Your task to perform on an android device: Search for sony triple a on target.com, select the first entry, add it to the cart, then select checkout. Image 0: 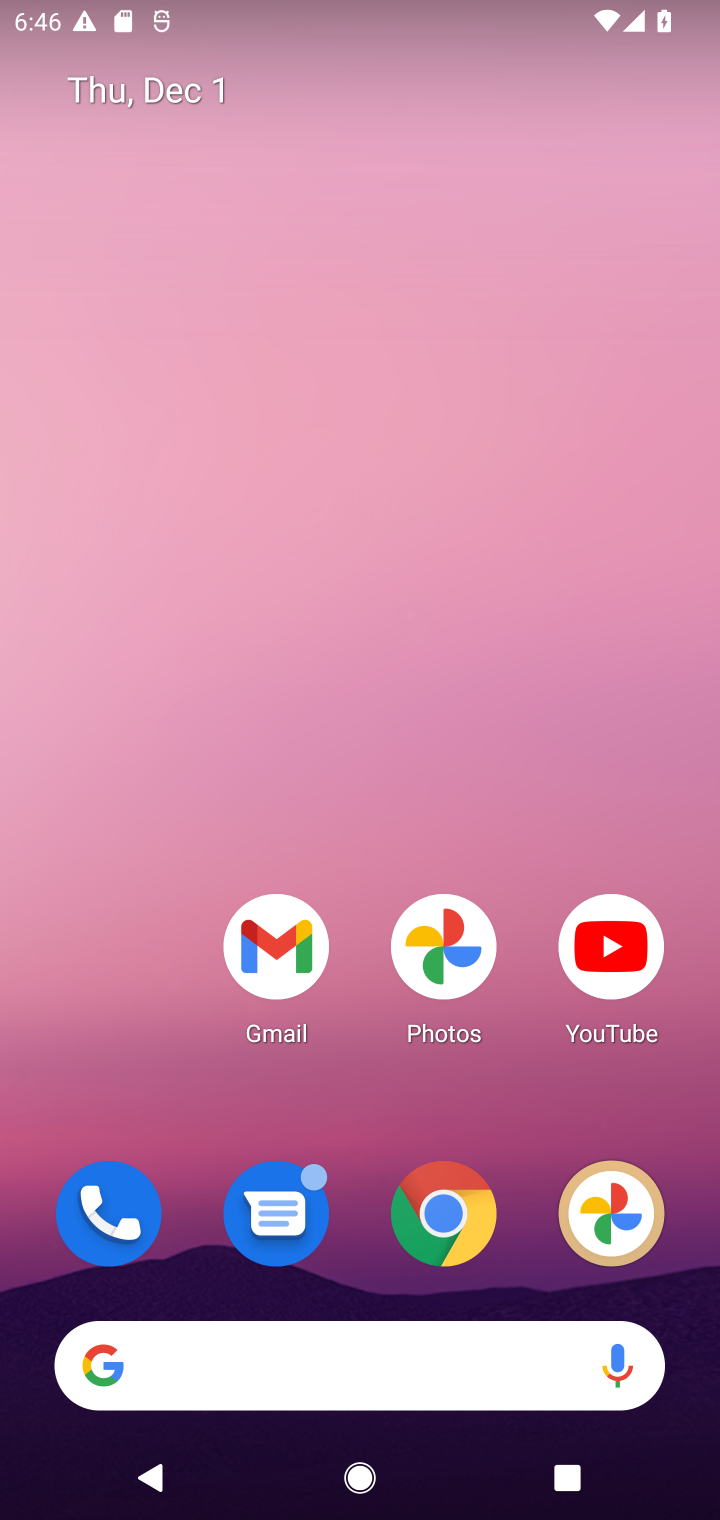
Step 0: click (430, 1375)
Your task to perform on an android device: Search for sony triple a on target.com, select the first entry, add it to the cart, then select checkout. Image 1: 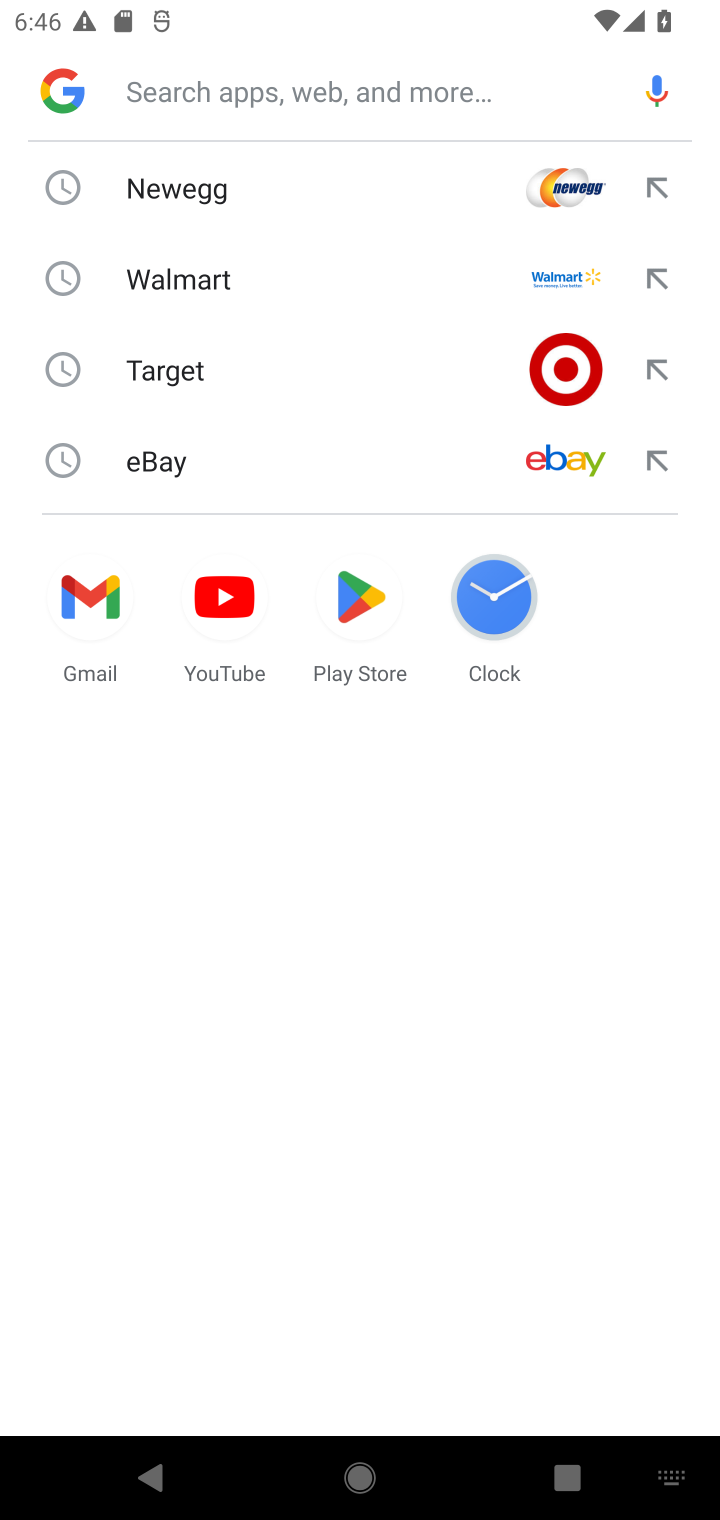
Step 1: click (147, 364)
Your task to perform on an android device: Search for sony triple a on target.com, select the first entry, add it to the cart, then select checkout. Image 2: 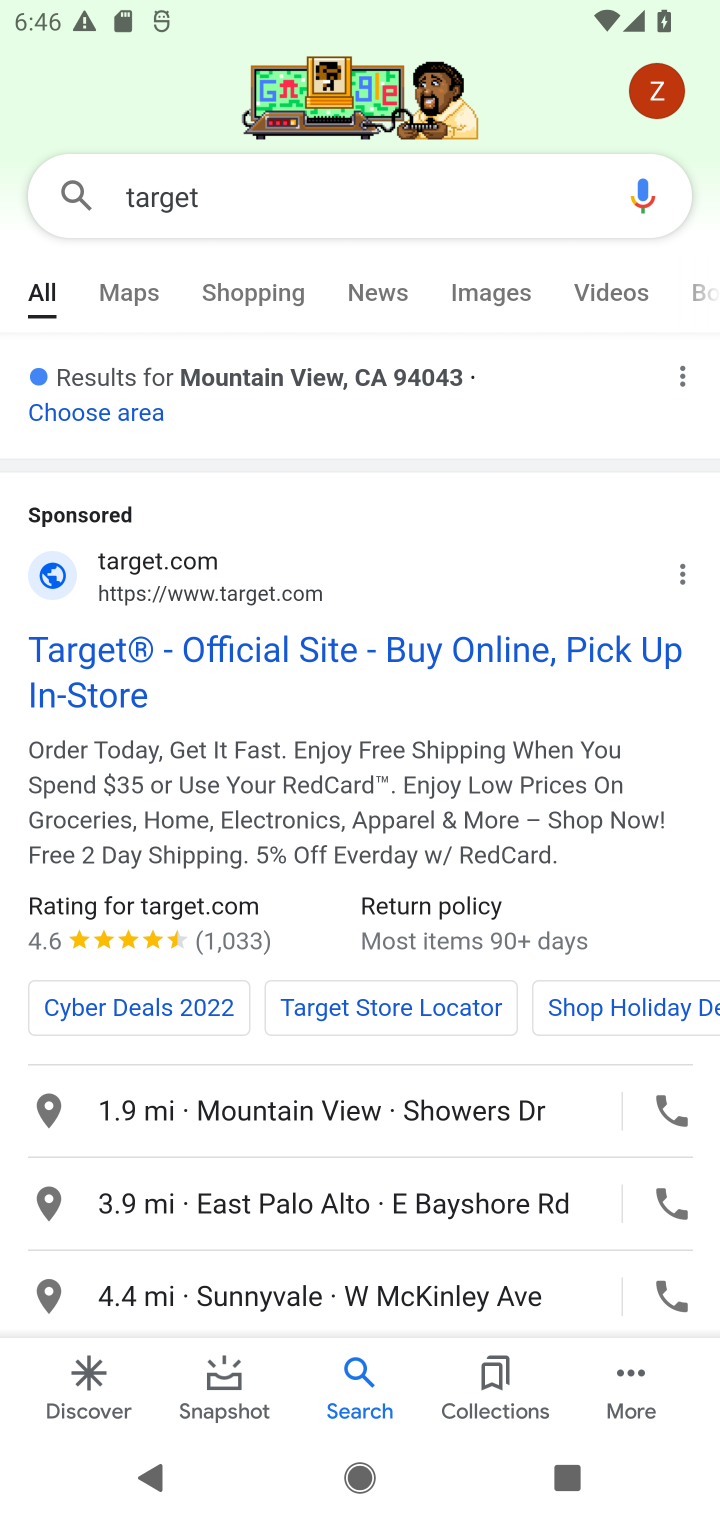
Step 2: click (96, 696)
Your task to perform on an android device: Search for sony triple a on target.com, select the first entry, add it to the cart, then select checkout. Image 3: 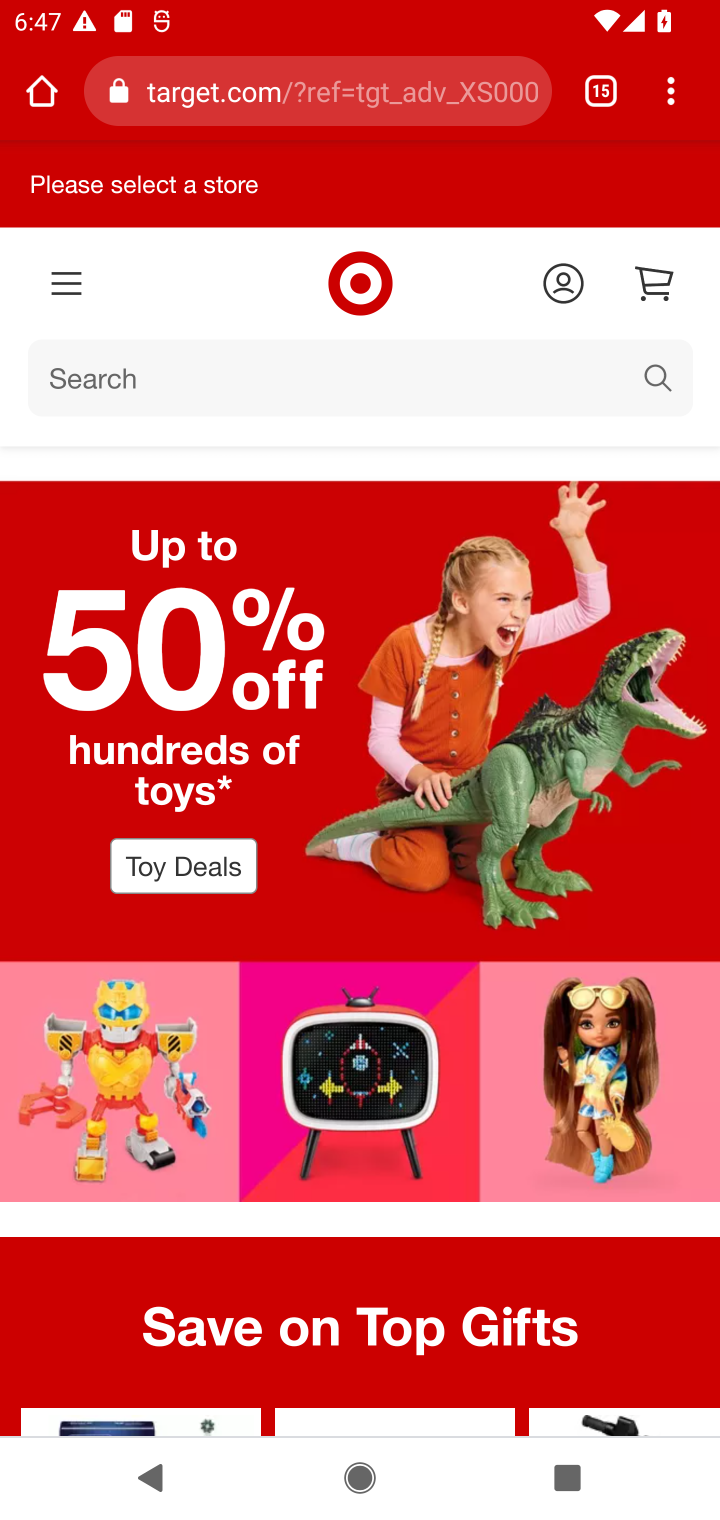
Step 3: click (216, 382)
Your task to perform on an android device: Search for sony triple a on target.com, select the first entry, add it to the cart, then select checkout. Image 4: 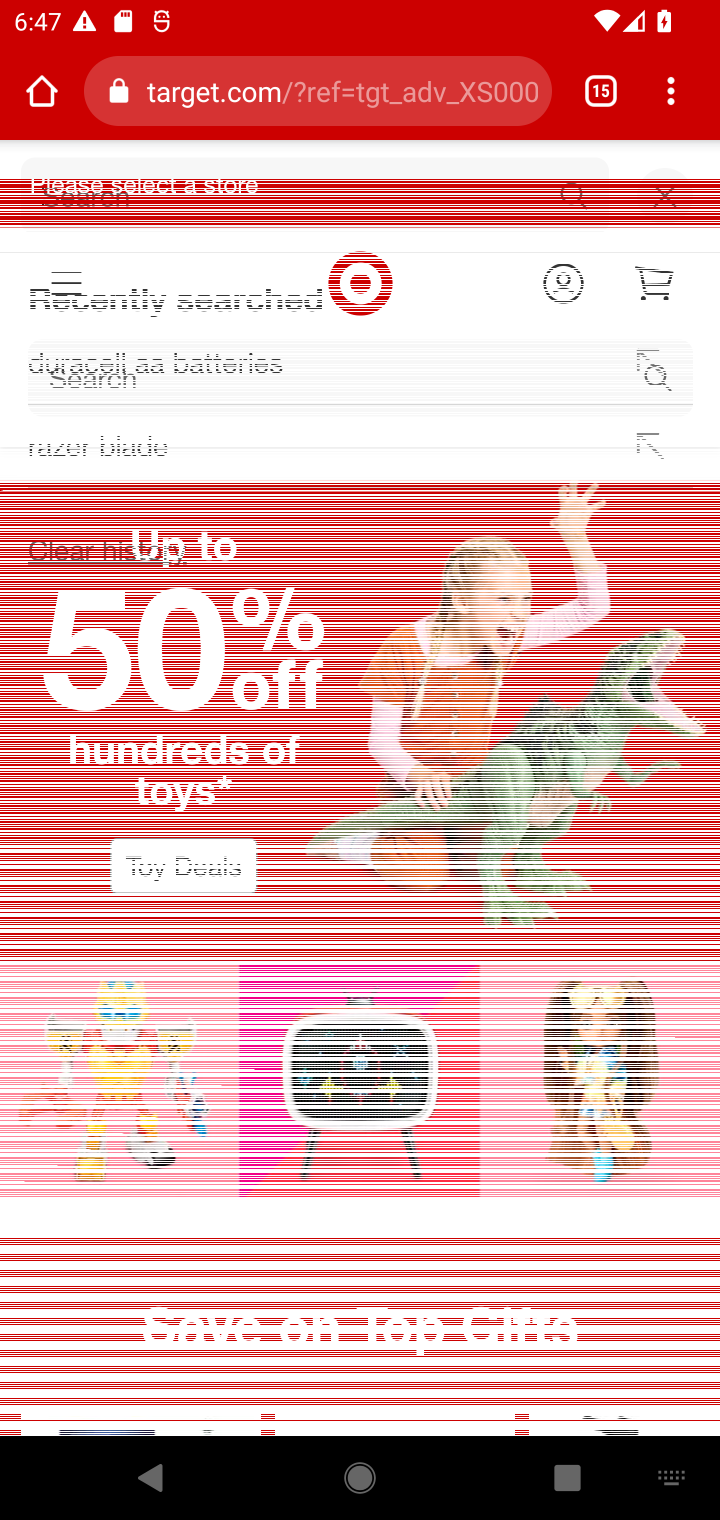
Step 4: type "sony triple "
Your task to perform on an android device: Search for sony triple a on target.com, select the first entry, add it to the cart, then select checkout. Image 5: 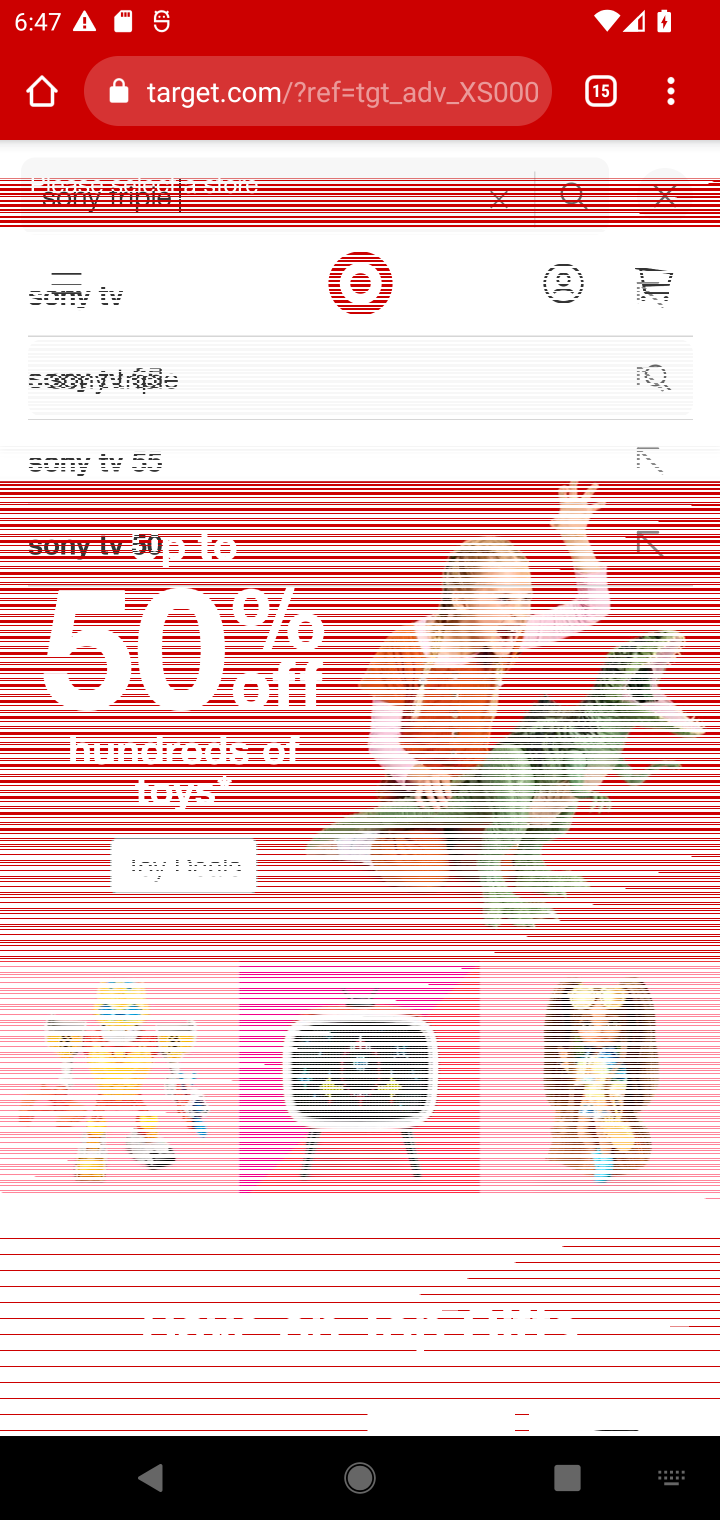
Step 5: click (584, 202)
Your task to perform on an android device: Search for sony triple a on target.com, select the first entry, add it to the cart, then select checkout. Image 6: 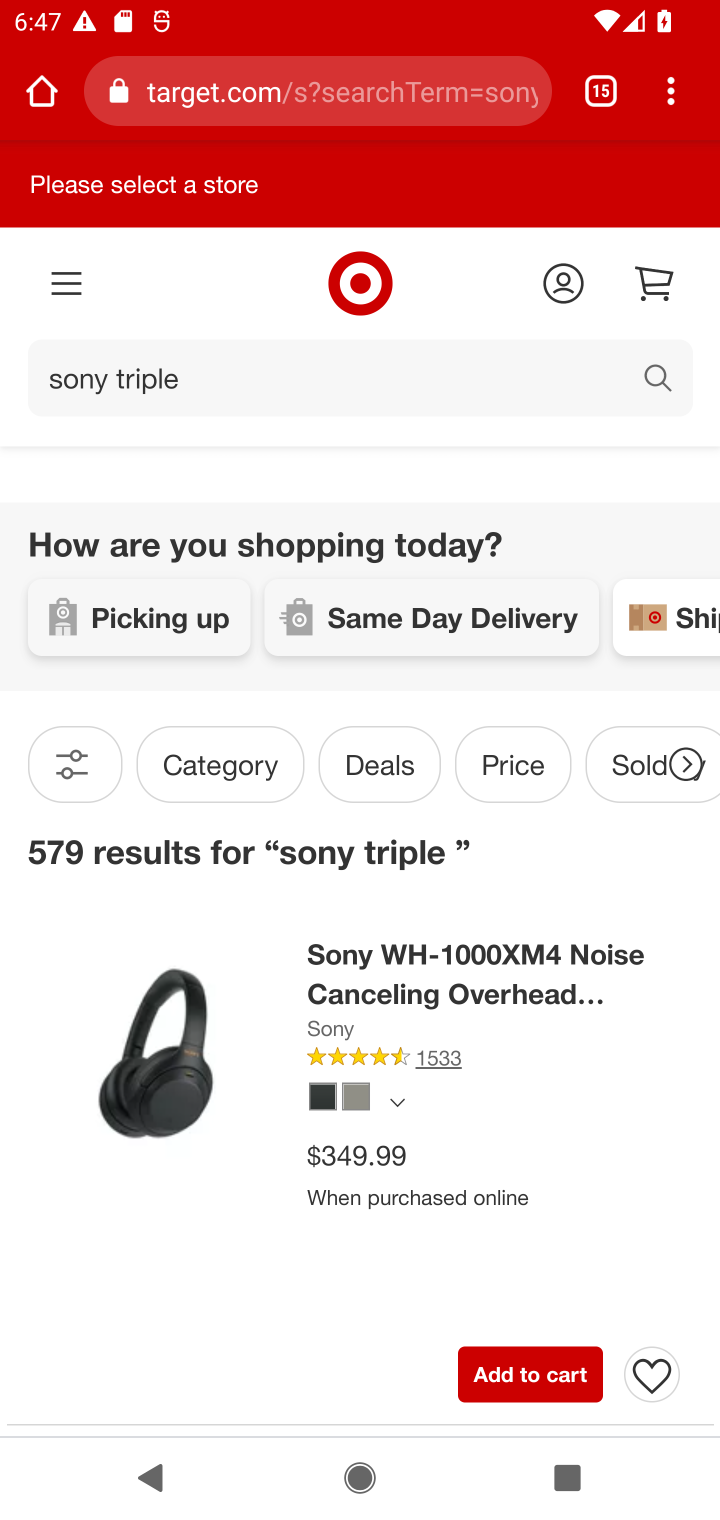
Step 6: click (497, 1358)
Your task to perform on an android device: Search for sony triple a on target.com, select the first entry, add it to the cart, then select checkout. Image 7: 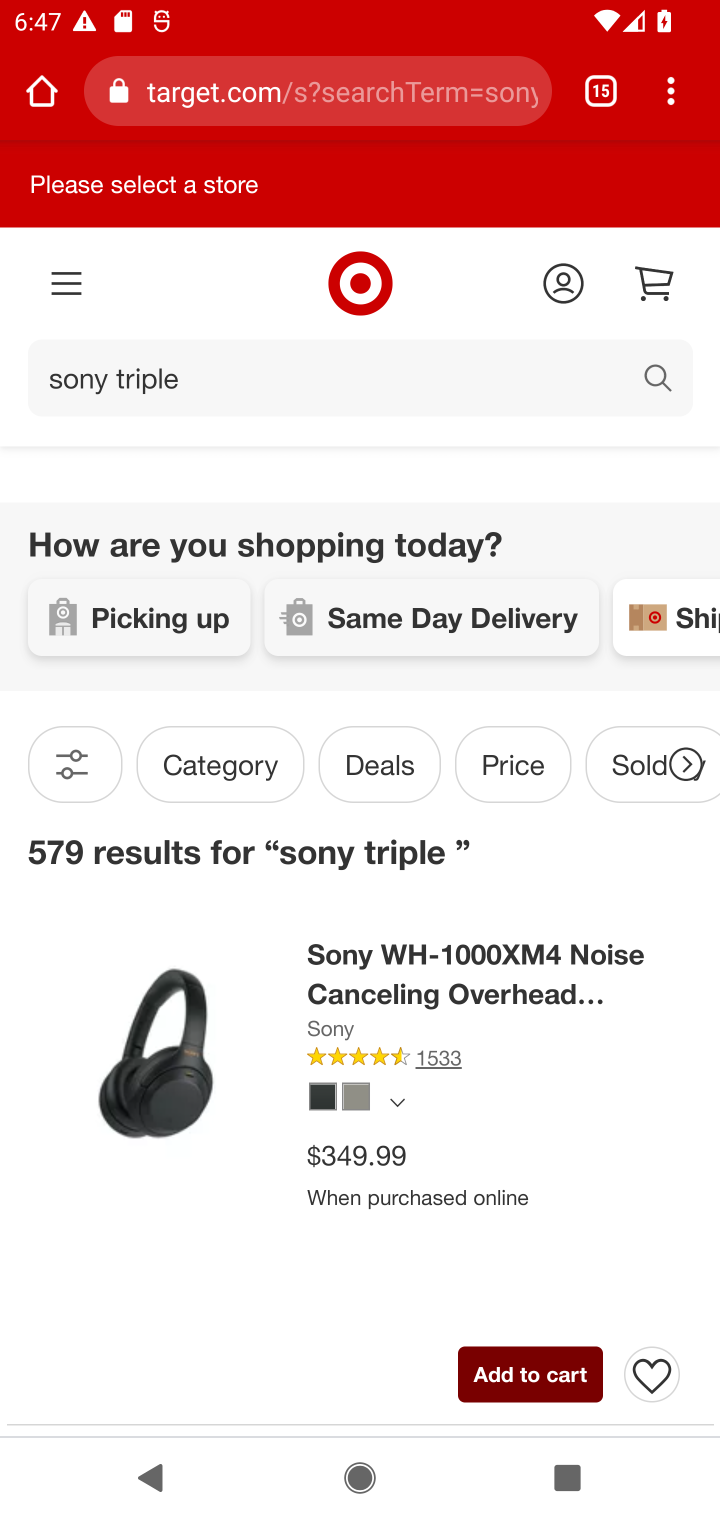
Step 7: task complete